Your task to perform on an android device: set default search engine in the chrome app Image 0: 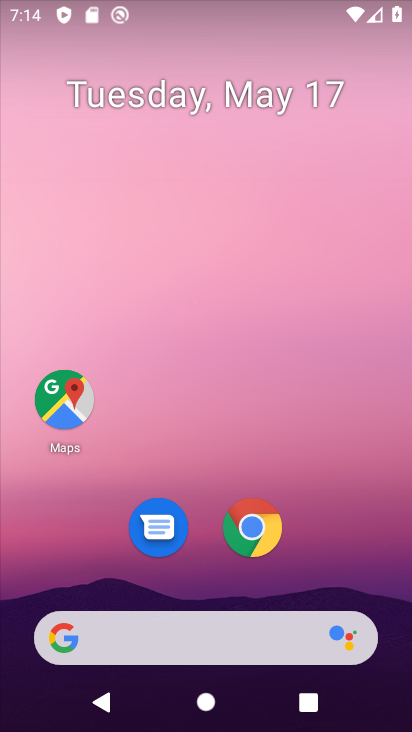
Step 0: click (253, 536)
Your task to perform on an android device: set default search engine in the chrome app Image 1: 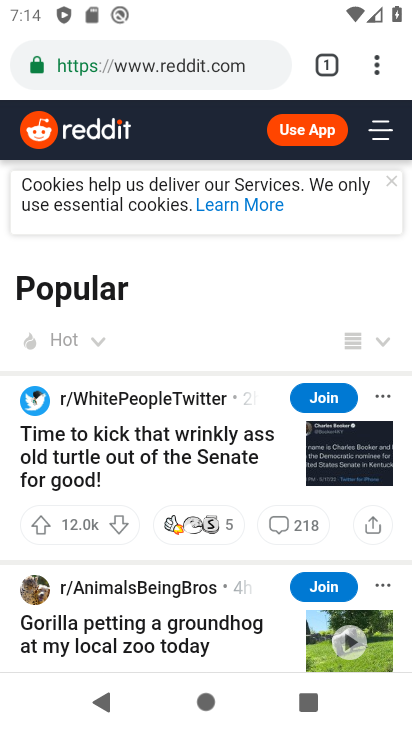
Step 1: click (382, 71)
Your task to perform on an android device: set default search engine in the chrome app Image 2: 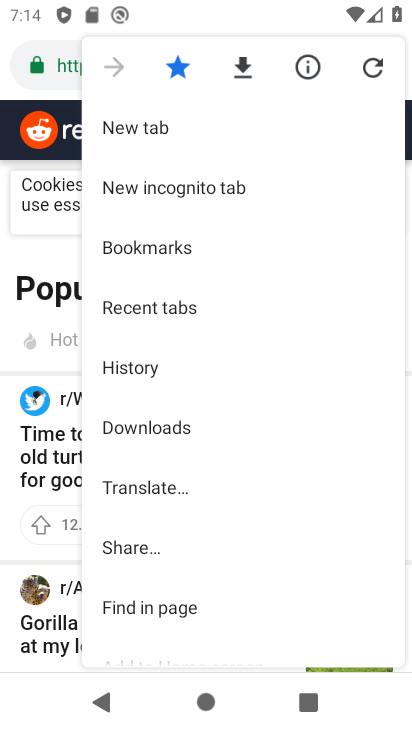
Step 2: drag from (210, 621) to (210, 331)
Your task to perform on an android device: set default search engine in the chrome app Image 3: 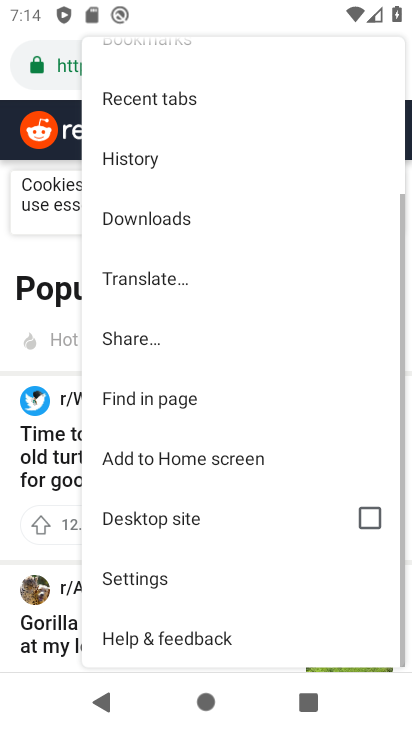
Step 3: click (168, 584)
Your task to perform on an android device: set default search engine in the chrome app Image 4: 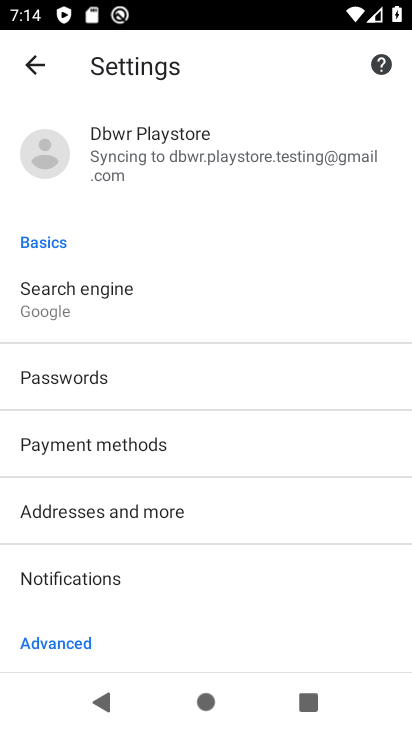
Step 4: click (113, 291)
Your task to perform on an android device: set default search engine in the chrome app Image 5: 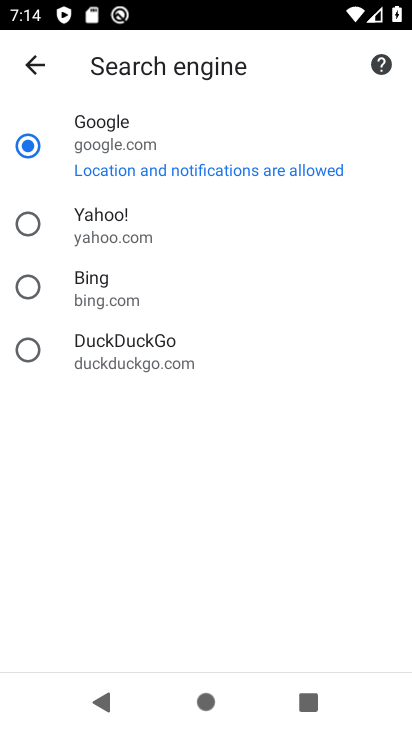
Step 5: click (98, 224)
Your task to perform on an android device: set default search engine in the chrome app Image 6: 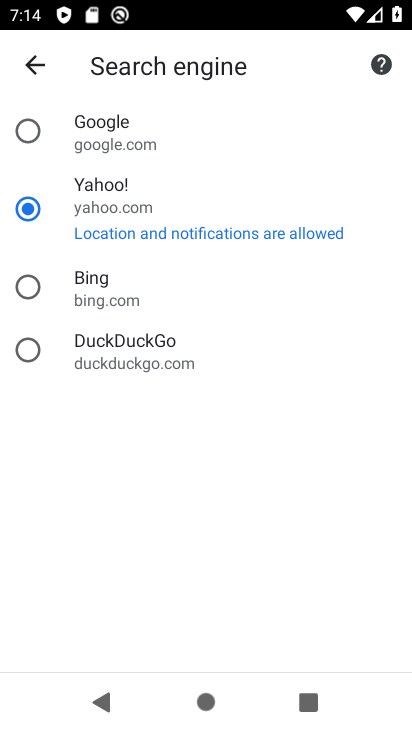
Step 6: task complete